Your task to perform on an android device: toggle pop-ups in chrome Image 0: 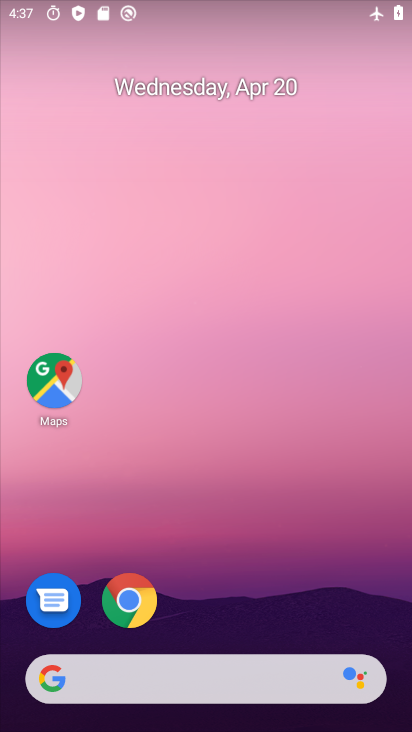
Step 0: drag from (260, 612) to (265, 156)
Your task to perform on an android device: toggle pop-ups in chrome Image 1: 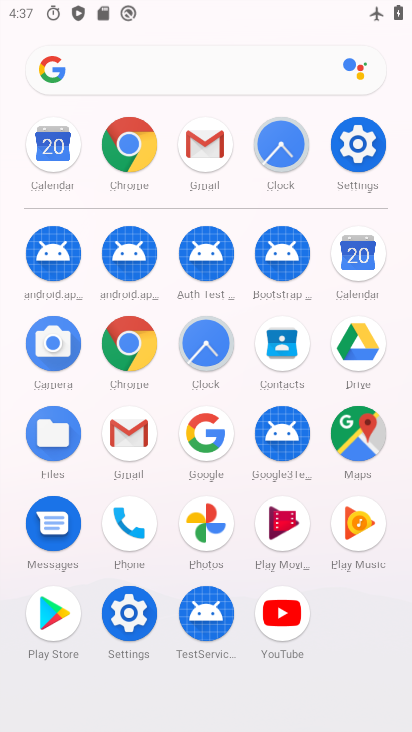
Step 1: click (136, 343)
Your task to perform on an android device: toggle pop-ups in chrome Image 2: 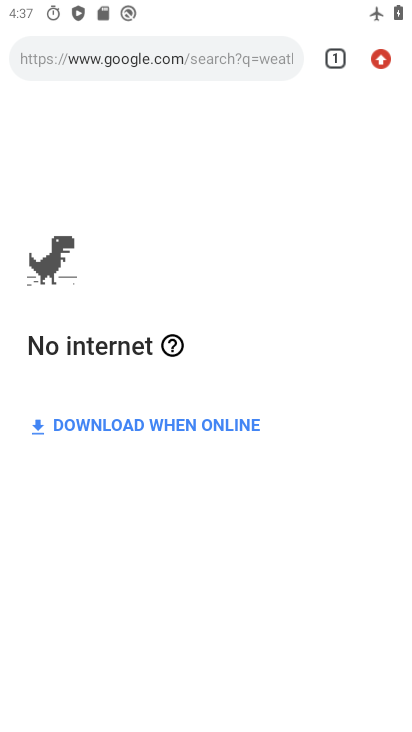
Step 2: drag from (395, 57) to (193, 625)
Your task to perform on an android device: toggle pop-ups in chrome Image 3: 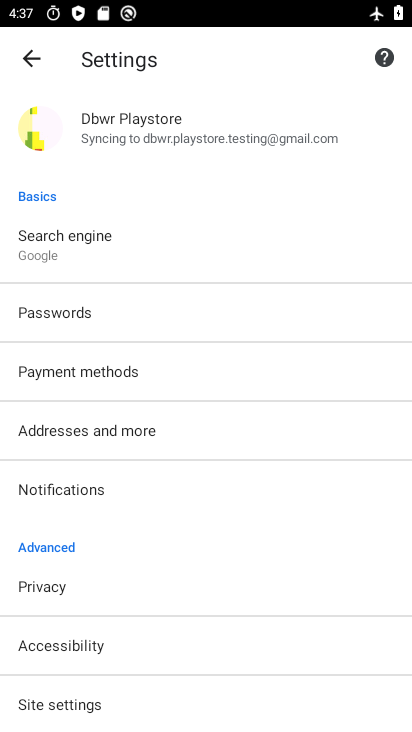
Step 3: drag from (123, 642) to (207, 286)
Your task to perform on an android device: toggle pop-ups in chrome Image 4: 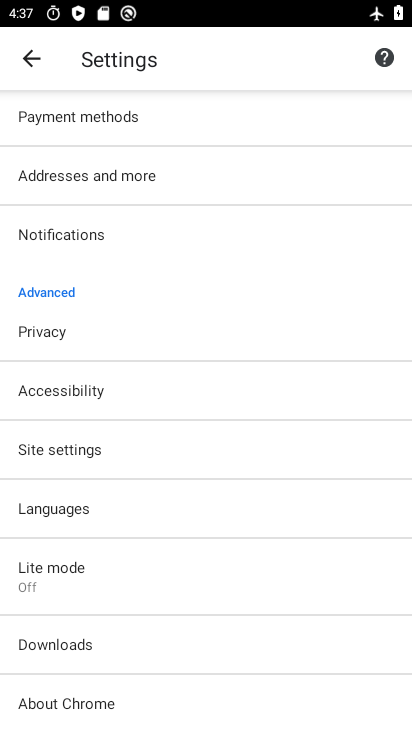
Step 4: click (75, 443)
Your task to perform on an android device: toggle pop-ups in chrome Image 5: 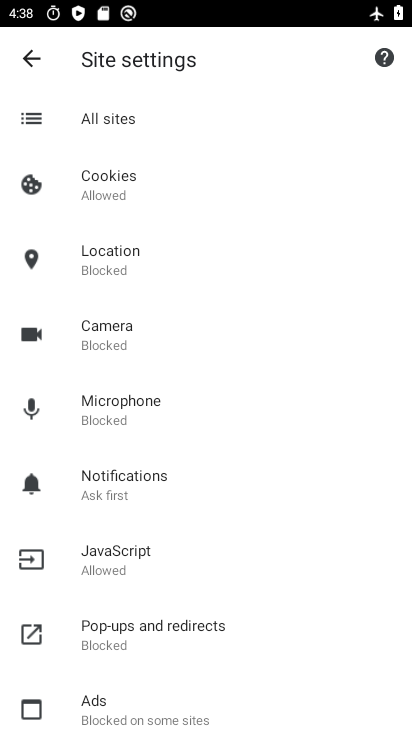
Step 5: click (189, 626)
Your task to perform on an android device: toggle pop-ups in chrome Image 6: 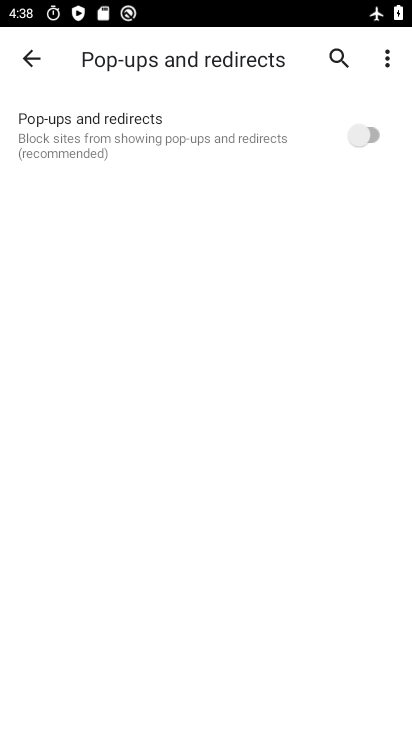
Step 6: click (377, 135)
Your task to perform on an android device: toggle pop-ups in chrome Image 7: 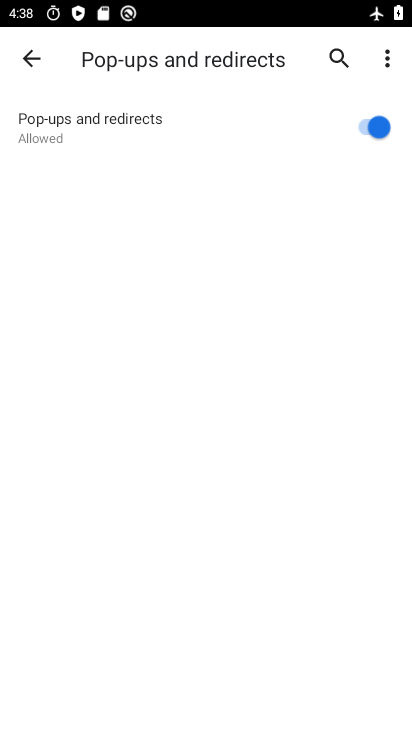
Step 7: task complete